Your task to perform on an android device: Open Google Maps and go to "Timeline" Image 0: 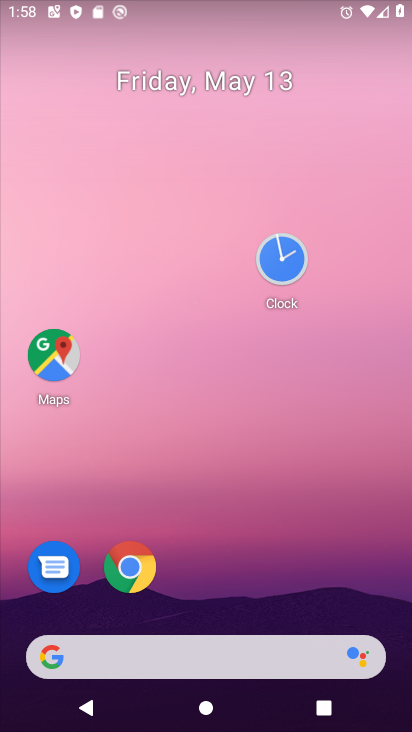
Step 0: click (34, 405)
Your task to perform on an android device: Open Google Maps and go to "Timeline" Image 1: 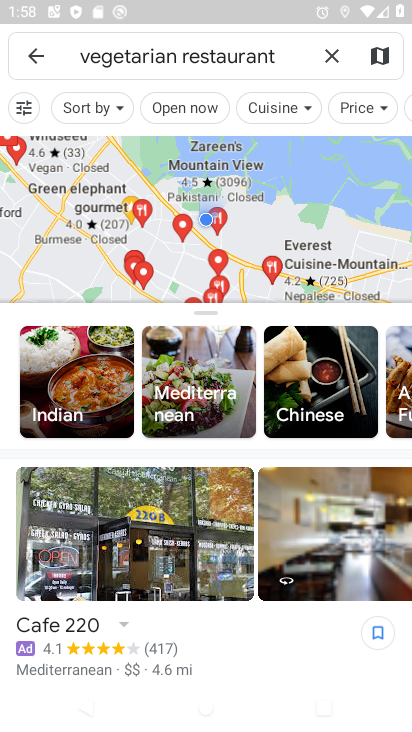
Step 1: click (38, 53)
Your task to perform on an android device: Open Google Maps and go to "Timeline" Image 2: 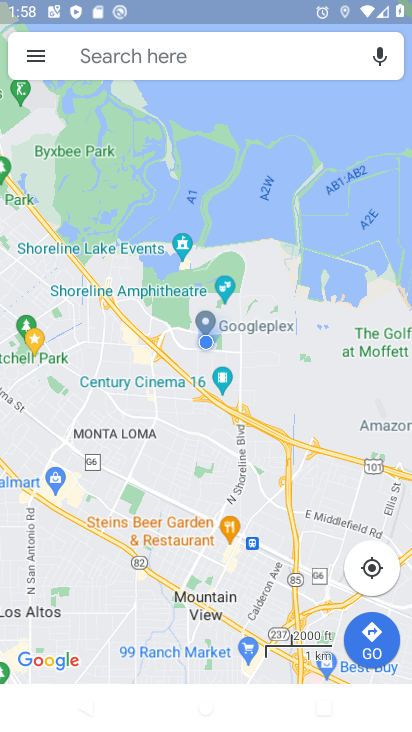
Step 2: click (38, 53)
Your task to perform on an android device: Open Google Maps and go to "Timeline" Image 3: 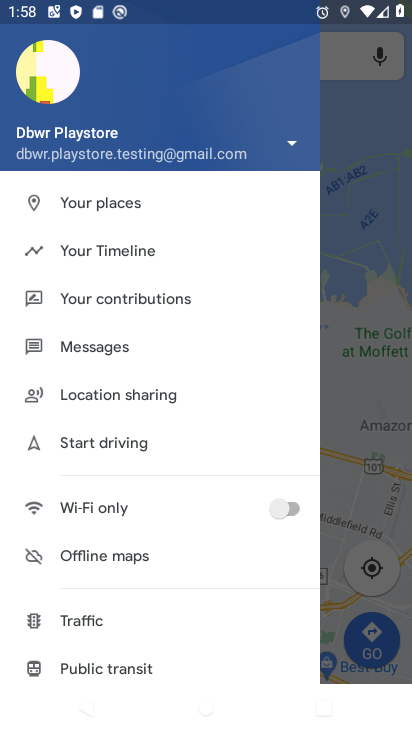
Step 3: click (88, 232)
Your task to perform on an android device: Open Google Maps and go to "Timeline" Image 4: 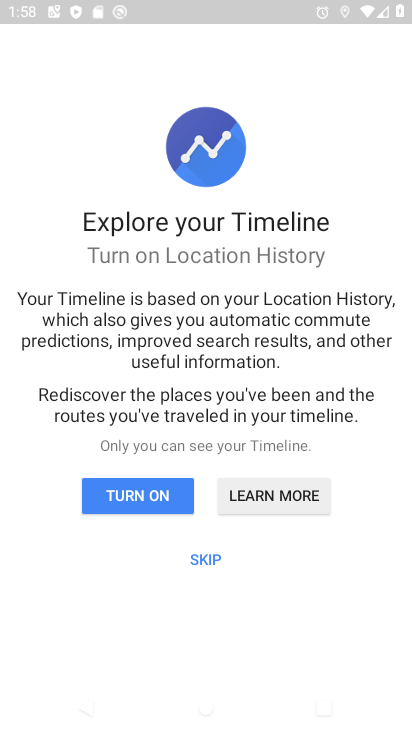
Step 4: task complete